Your task to perform on an android device: set an alarm Image 0: 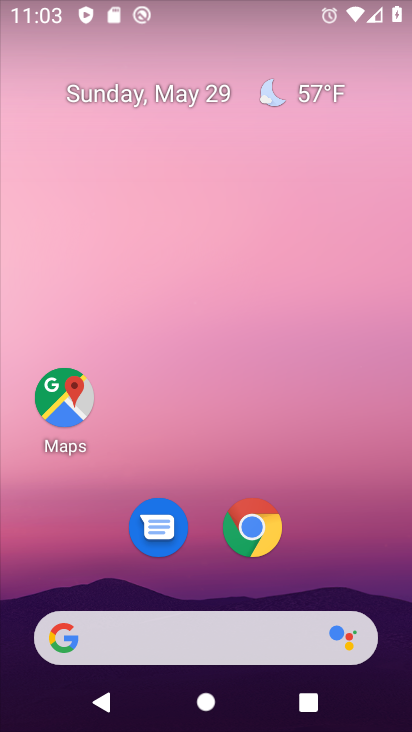
Step 0: drag from (206, 575) to (216, 91)
Your task to perform on an android device: set an alarm Image 1: 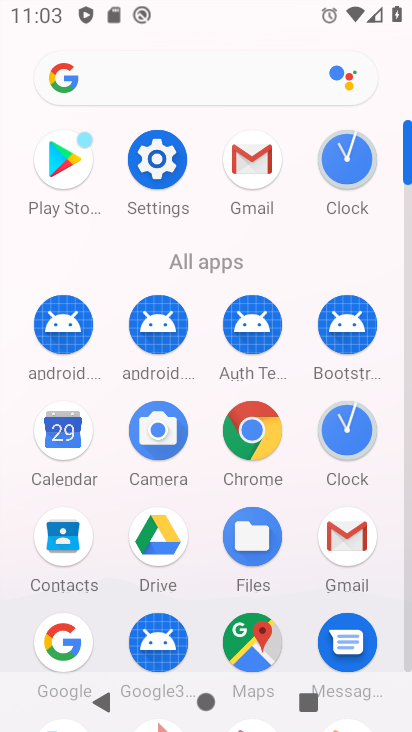
Step 1: click (336, 158)
Your task to perform on an android device: set an alarm Image 2: 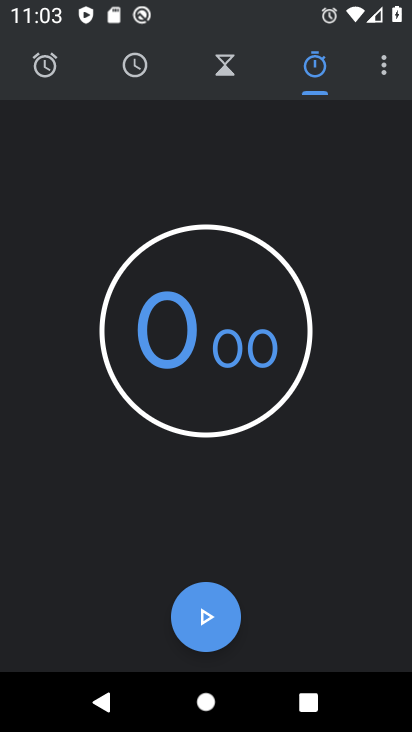
Step 2: click (49, 77)
Your task to perform on an android device: set an alarm Image 3: 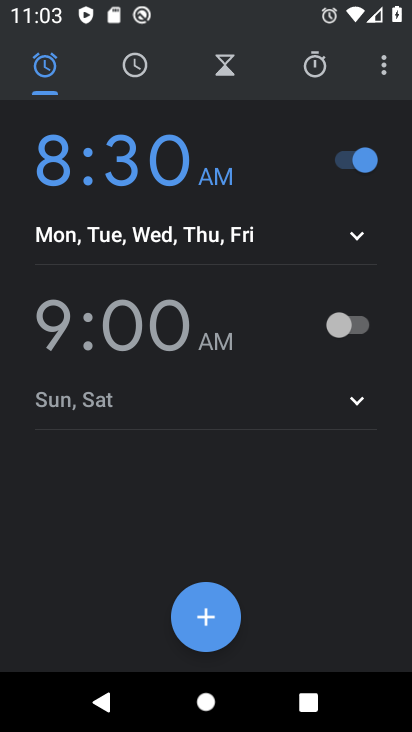
Step 3: click (332, 341)
Your task to perform on an android device: set an alarm Image 4: 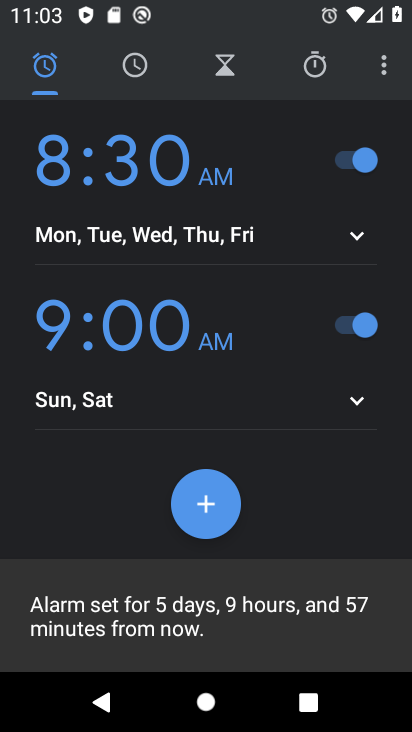
Step 4: task complete